Your task to perform on an android device: check battery use Image 0: 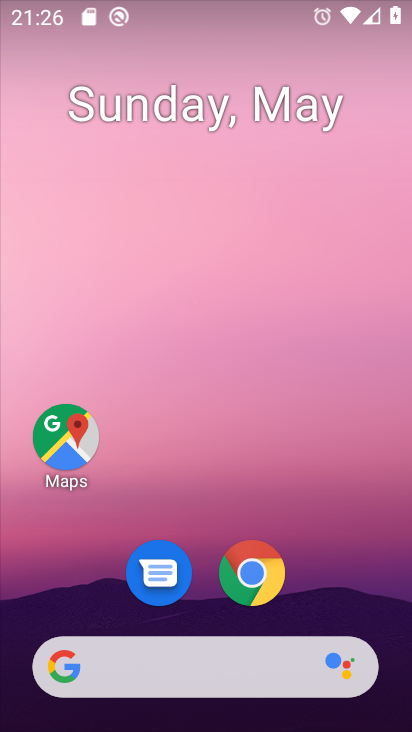
Step 0: drag from (264, 446) to (231, 0)
Your task to perform on an android device: check battery use Image 1: 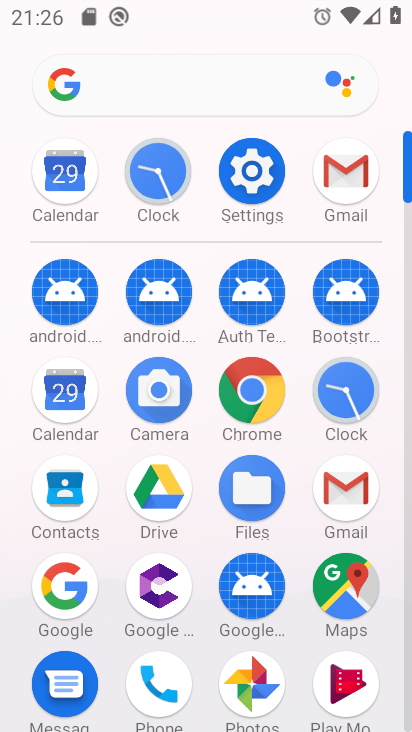
Step 1: click (264, 179)
Your task to perform on an android device: check battery use Image 2: 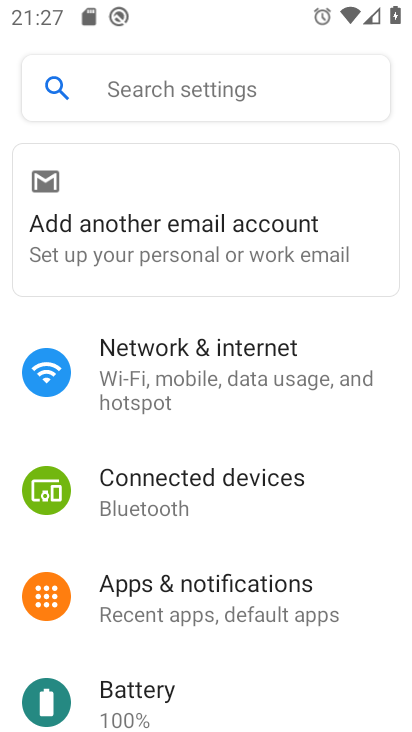
Step 2: click (283, 360)
Your task to perform on an android device: check battery use Image 3: 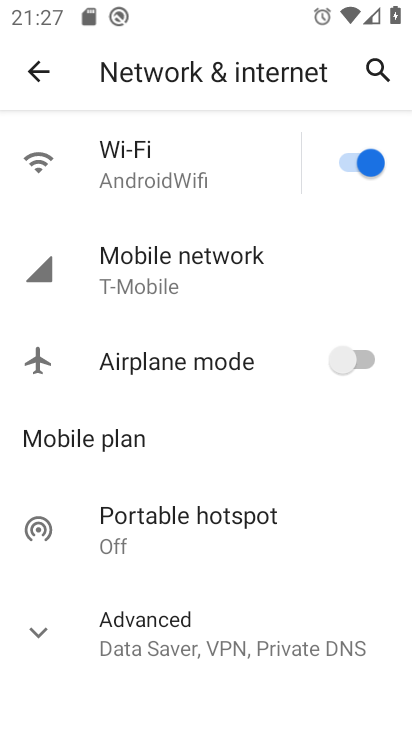
Step 3: click (35, 58)
Your task to perform on an android device: check battery use Image 4: 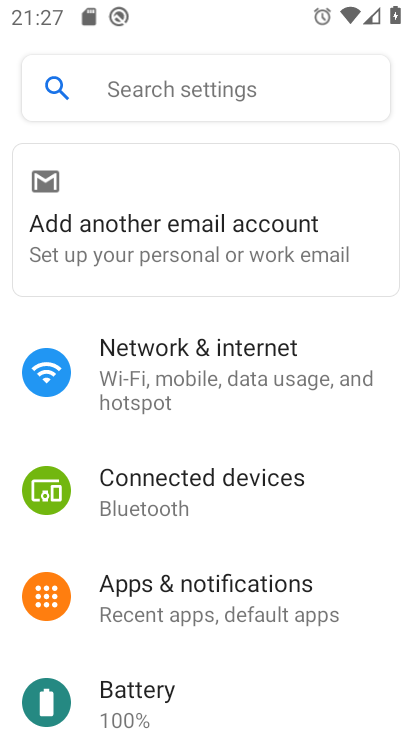
Step 4: click (175, 704)
Your task to perform on an android device: check battery use Image 5: 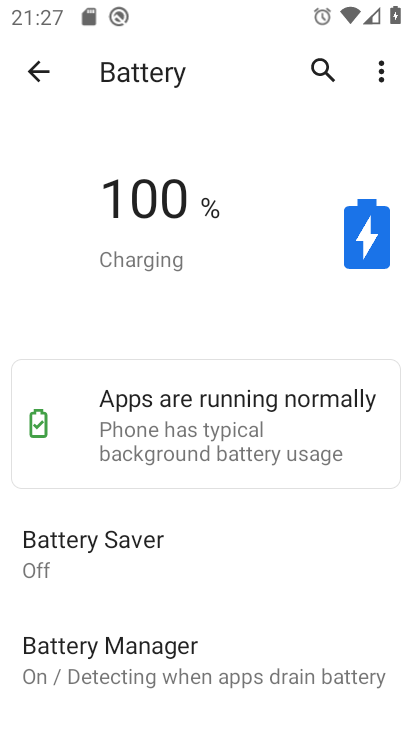
Step 5: click (368, 69)
Your task to perform on an android device: check battery use Image 6: 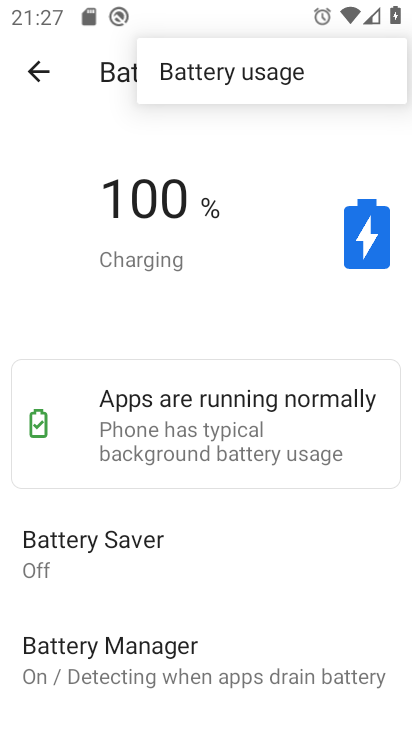
Step 6: click (298, 59)
Your task to perform on an android device: check battery use Image 7: 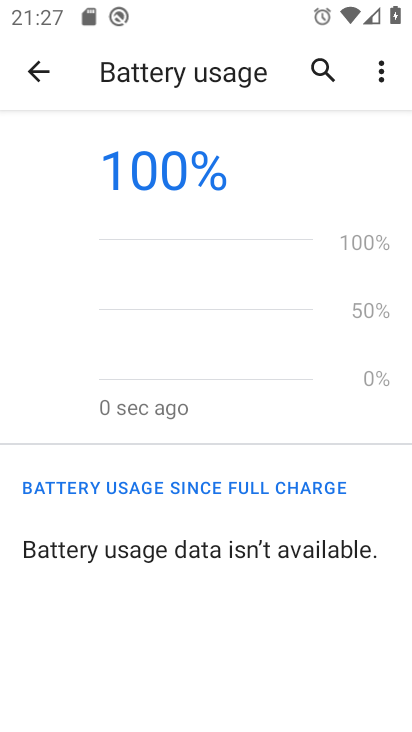
Step 7: task complete